Your task to perform on an android device: turn off location history Image 0: 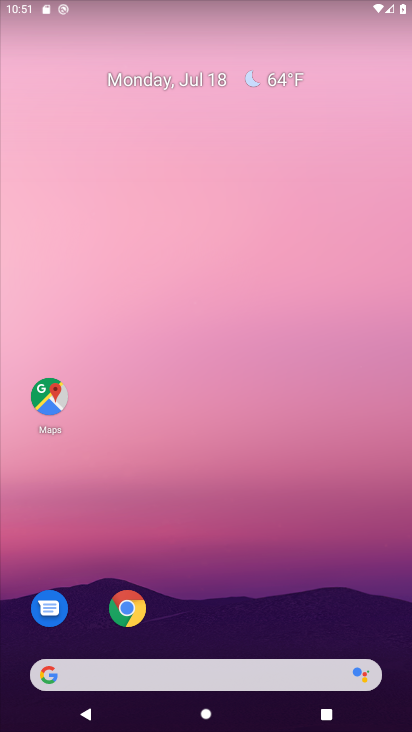
Step 0: drag from (94, 491) to (304, 76)
Your task to perform on an android device: turn off location history Image 1: 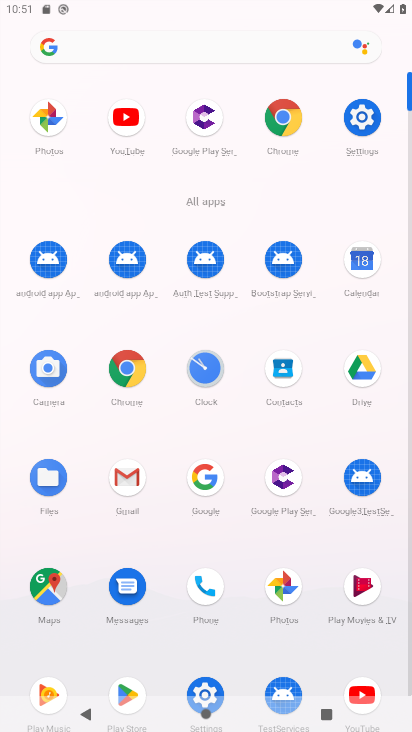
Step 1: click (358, 125)
Your task to perform on an android device: turn off location history Image 2: 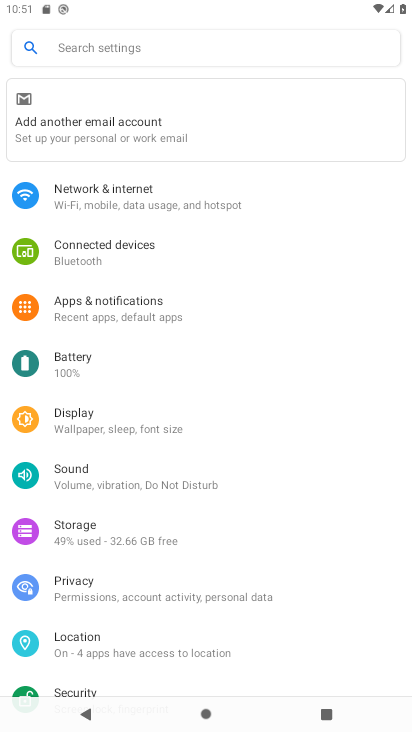
Step 2: click (173, 639)
Your task to perform on an android device: turn off location history Image 3: 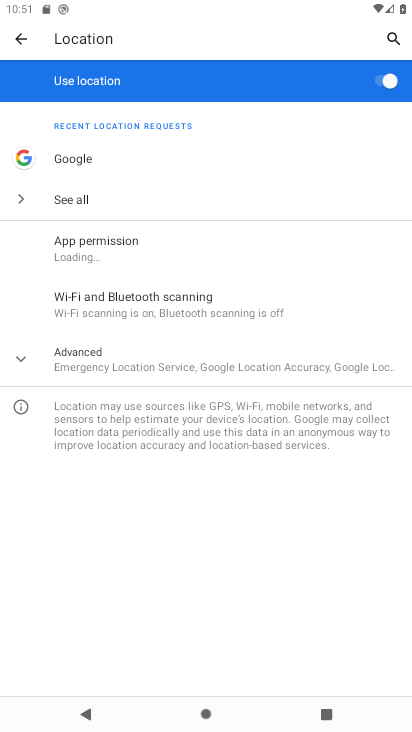
Step 3: click (210, 352)
Your task to perform on an android device: turn off location history Image 4: 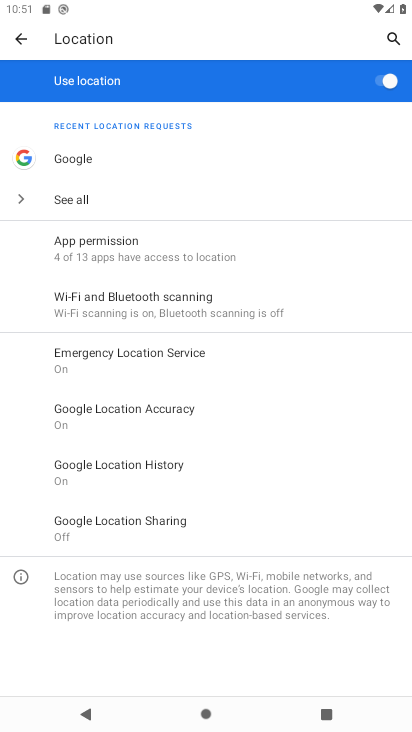
Step 4: click (187, 471)
Your task to perform on an android device: turn off location history Image 5: 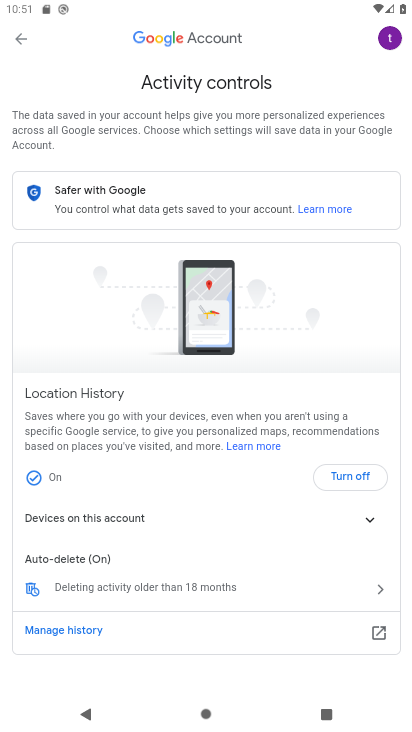
Step 5: click (360, 476)
Your task to perform on an android device: turn off location history Image 6: 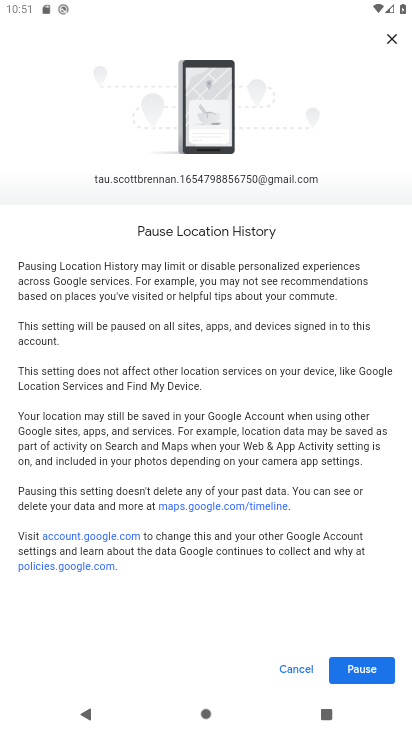
Step 6: click (337, 672)
Your task to perform on an android device: turn off location history Image 7: 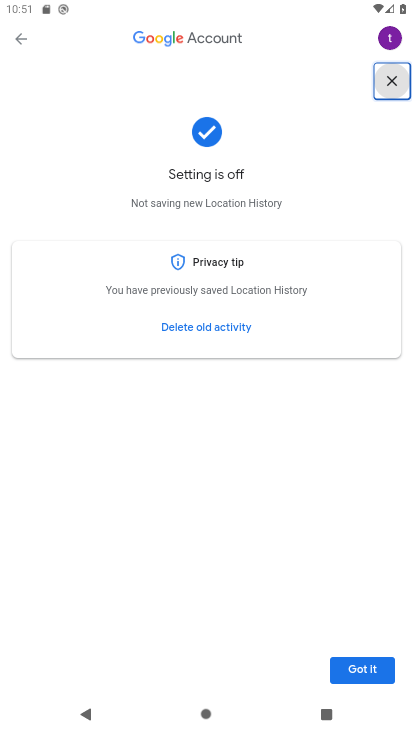
Step 7: click (351, 667)
Your task to perform on an android device: turn off location history Image 8: 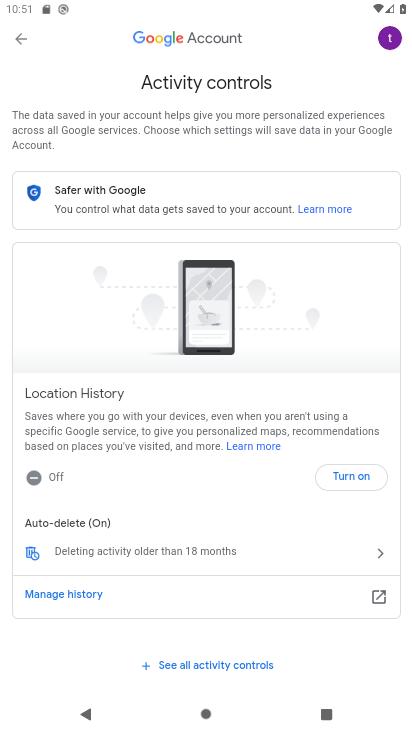
Step 8: task complete